Your task to perform on an android device: Do I have any events today? Image 0: 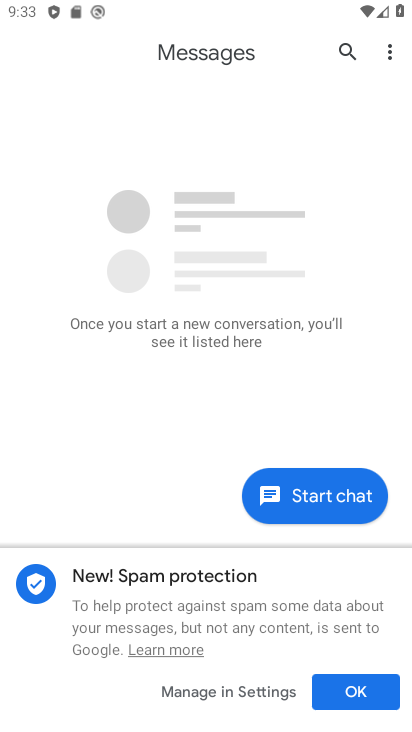
Step 0: press home button
Your task to perform on an android device: Do I have any events today? Image 1: 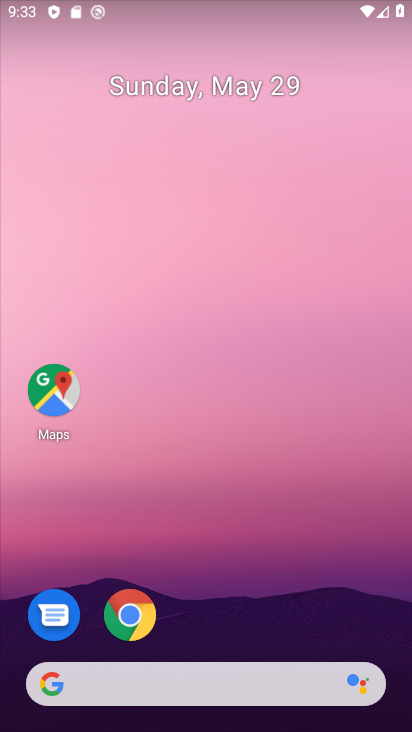
Step 1: drag from (213, 658) to (202, 51)
Your task to perform on an android device: Do I have any events today? Image 2: 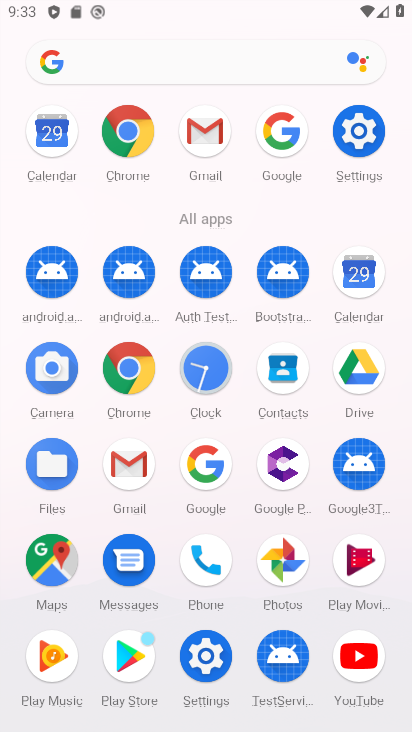
Step 2: click (356, 282)
Your task to perform on an android device: Do I have any events today? Image 3: 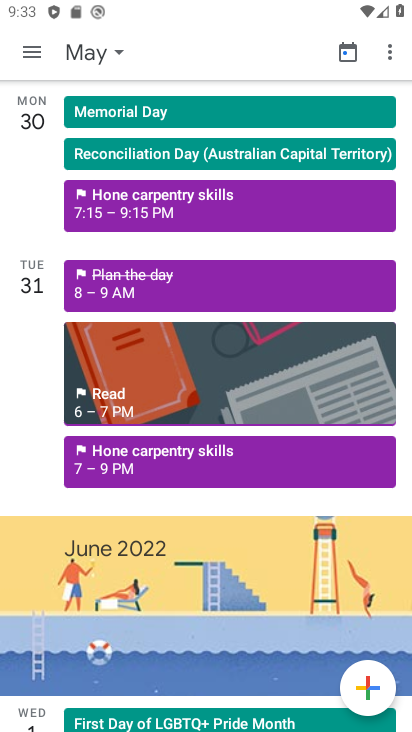
Step 3: click (36, 60)
Your task to perform on an android device: Do I have any events today? Image 4: 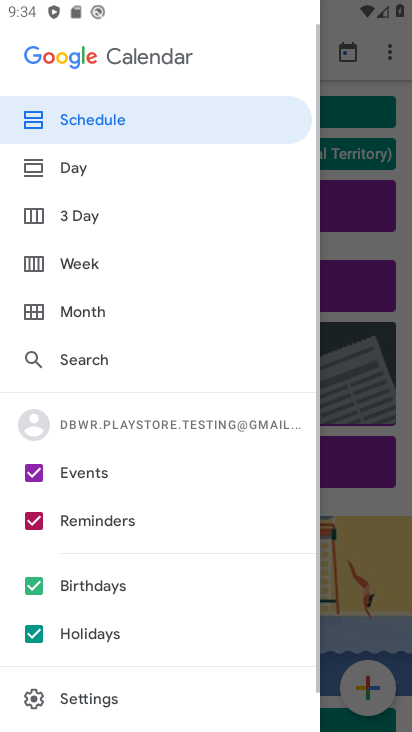
Step 4: click (76, 167)
Your task to perform on an android device: Do I have any events today? Image 5: 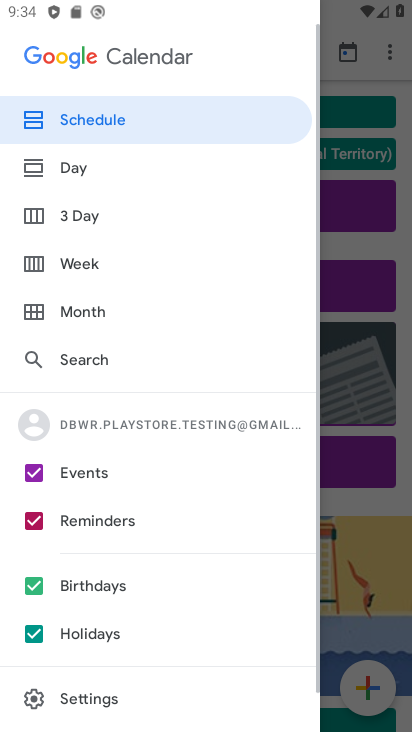
Step 5: click (355, 65)
Your task to perform on an android device: Do I have any events today? Image 6: 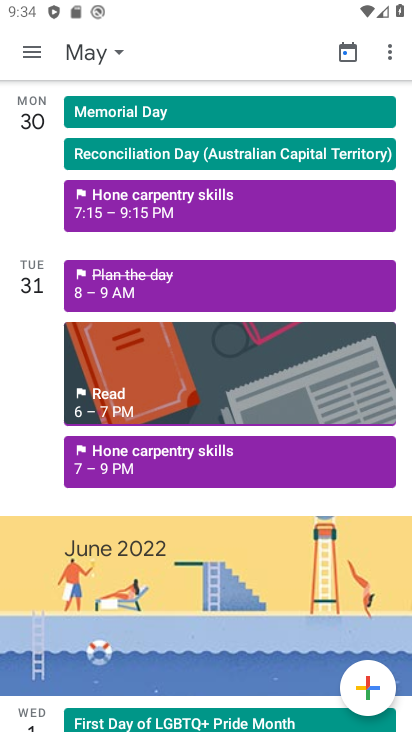
Step 6: click (350, 59)
Your task to perform on an android device: Do I have any events today? Image 7: 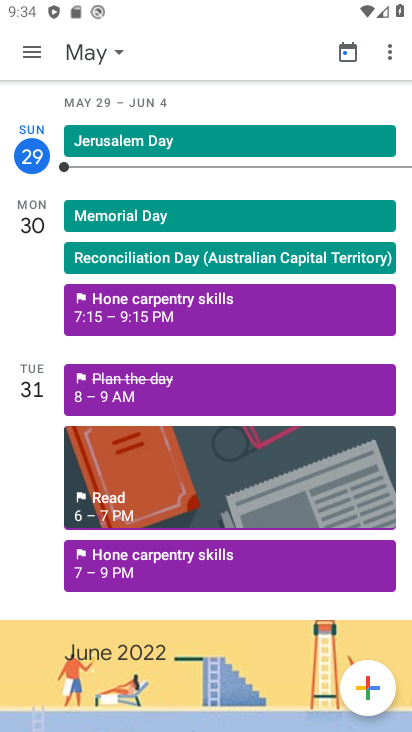
Step 7: click (16, 158)
Your task to perform on an android device: Do I have any events today? Image 8: 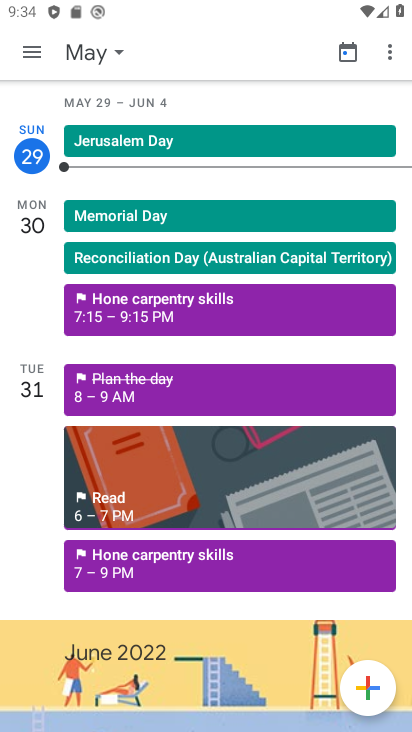
Step 8: click (36, 148)
Your task to perform on an android device: Do I have any events today? Image 9: 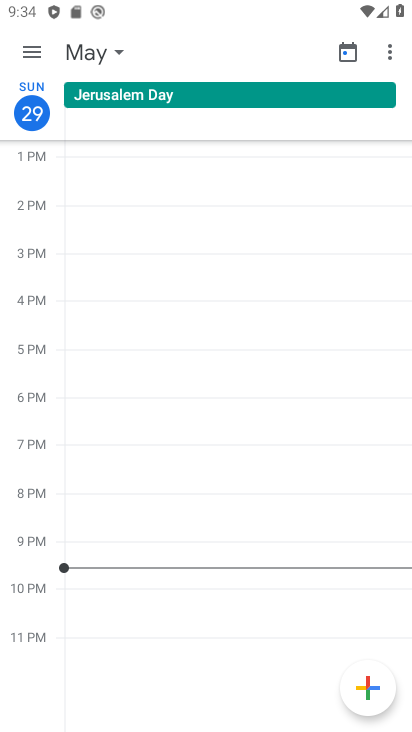
Step 9: task complete